Your task to perform on an android device: Open Google Chrome and click the shortcut for Amazon.com Image 0: 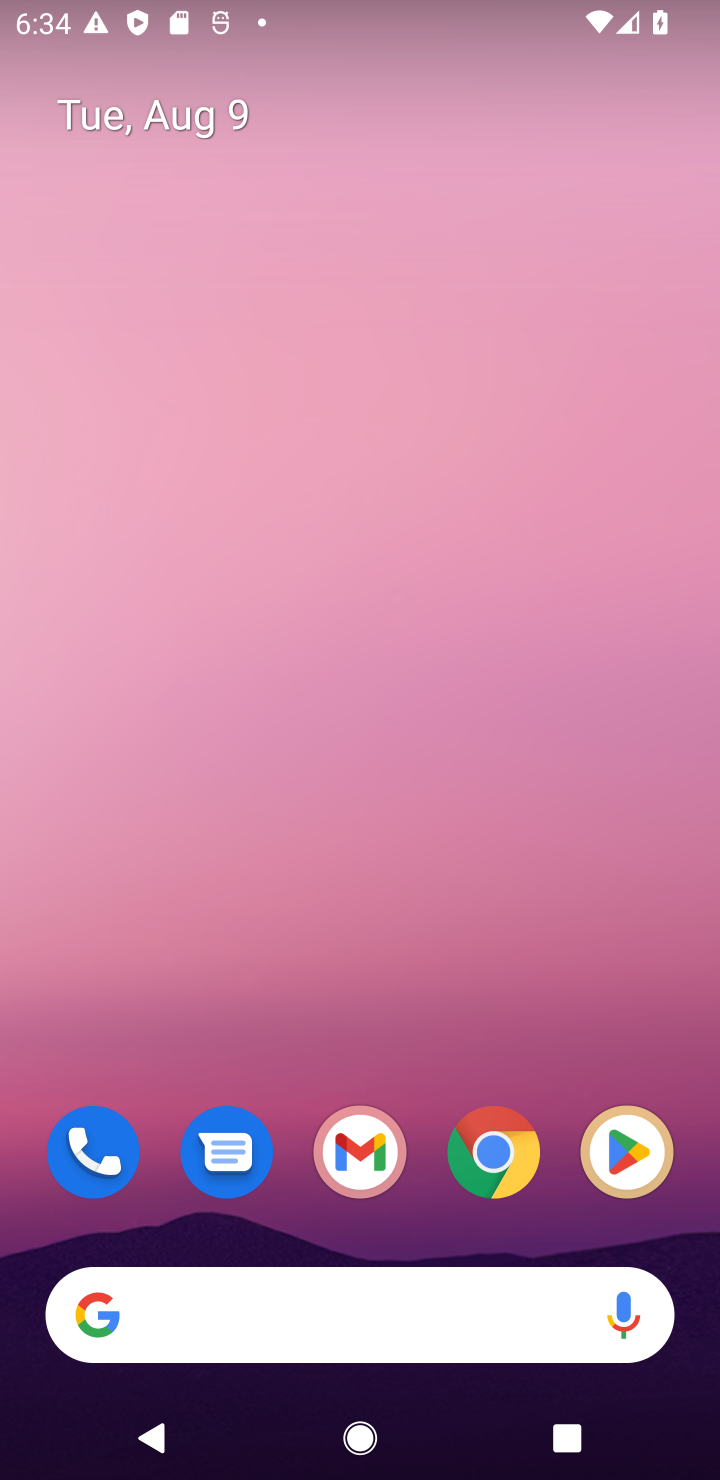
Step 0: click (481, 1169)
Your task to perform on an android device: Open Google Chrome and click the shortcut for Amazon.com Image 1: 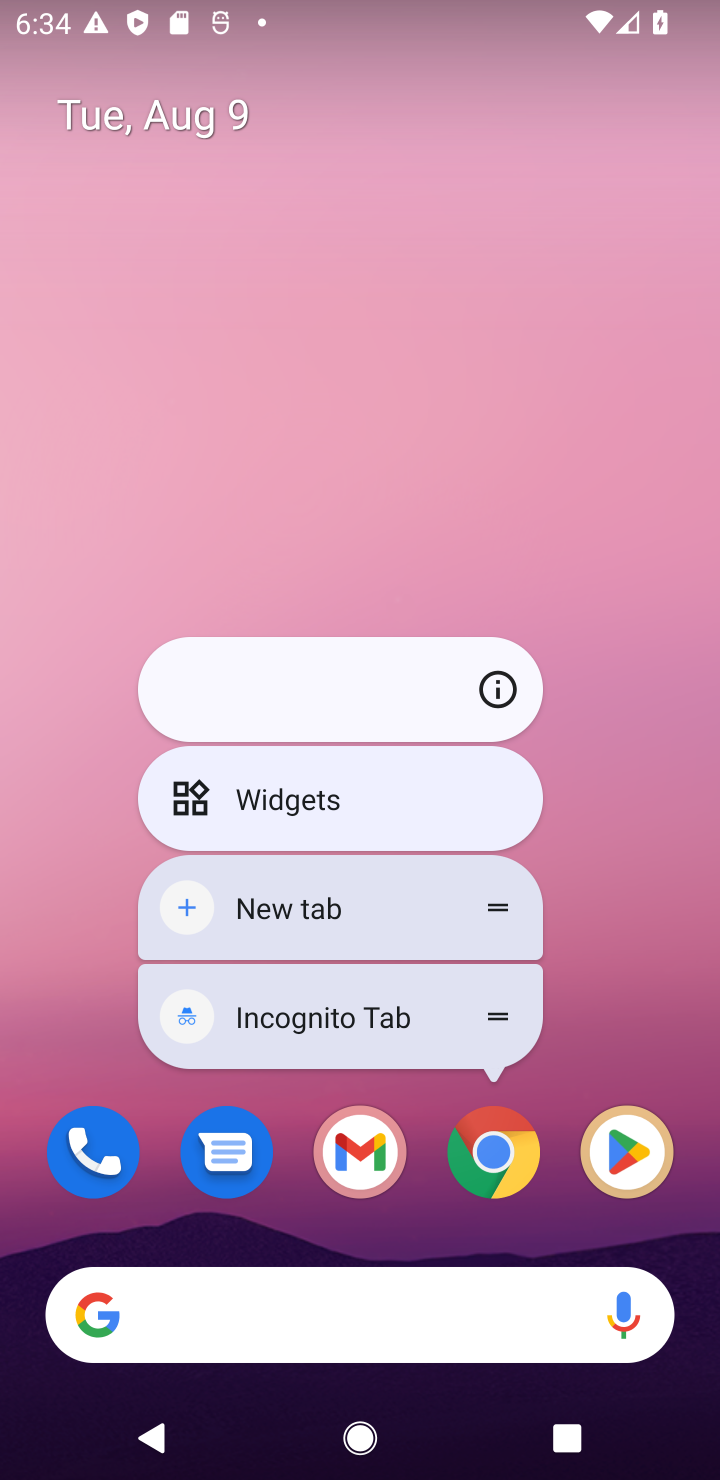
Step 1: click (501, 1165)
Your task to perform on an android device: Open Google Chrome and click the shortcut for Amazon.com Image 2: 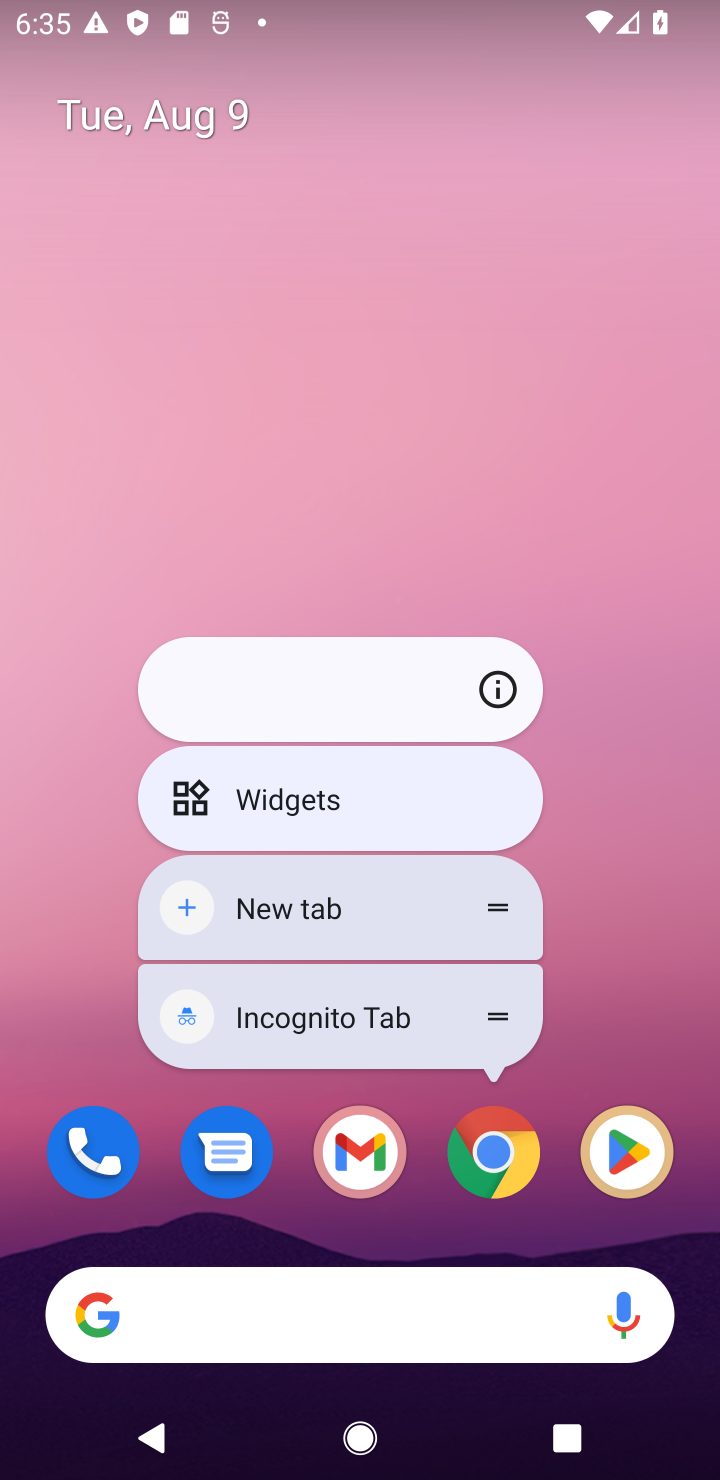
Step 2: click (512, 1129)
Your task to perform on an android device: Open Google Chrome and click the shortcut for Amazon.com Image 3: 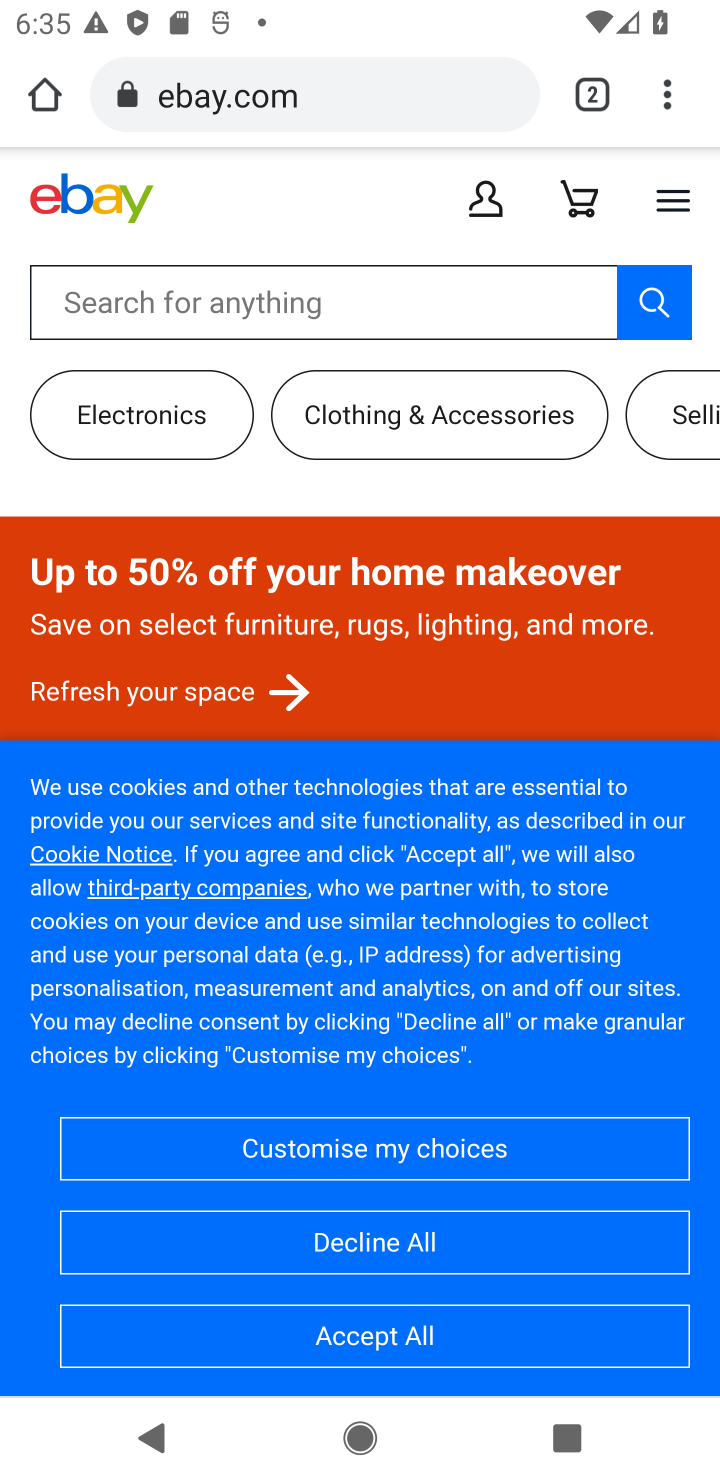
Step 3: click (617, 89)
Your task to perform on an android device: Open Google Chrome and click the shortcut for Amazon.com Image 4: 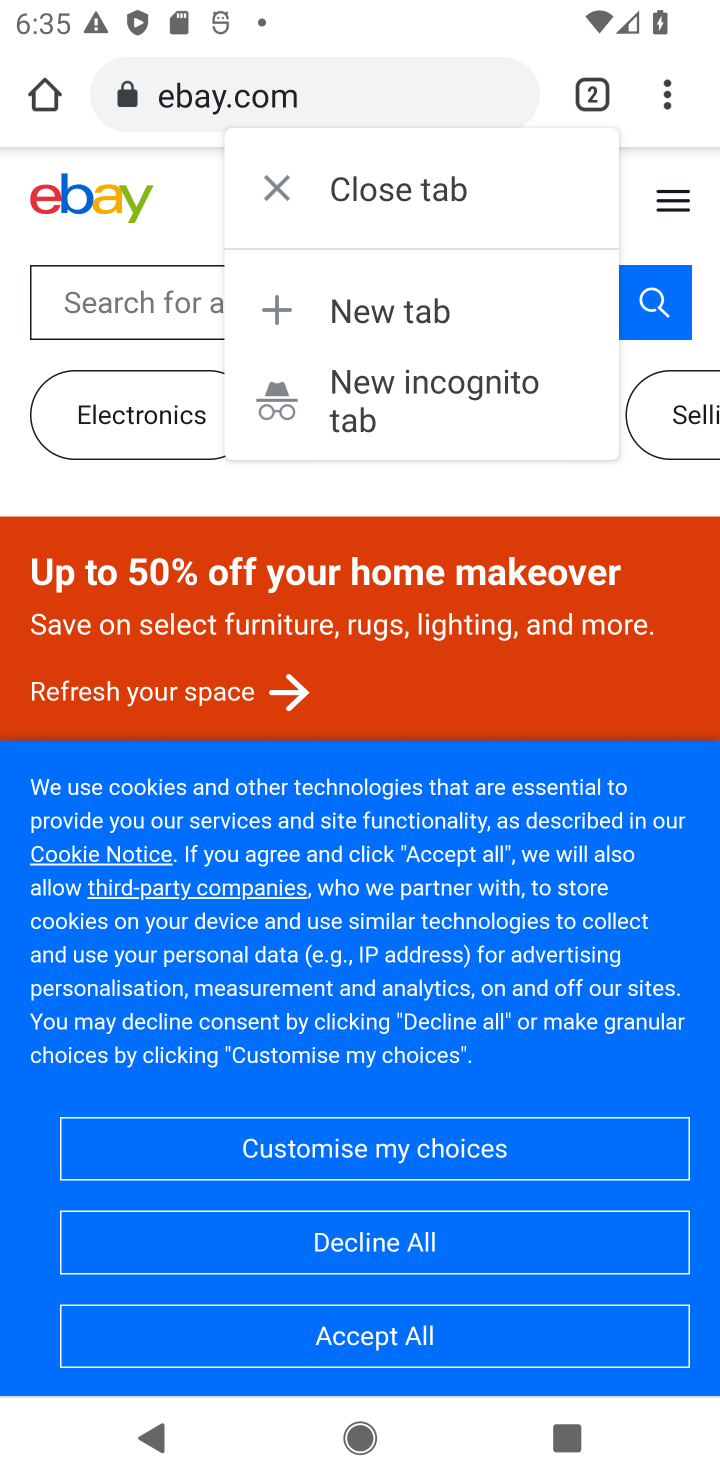
Step 4: click (412, 315)
Your task to perform on an android device: Open Google Chrome and click the shortcut for Amazon.com Image 5: 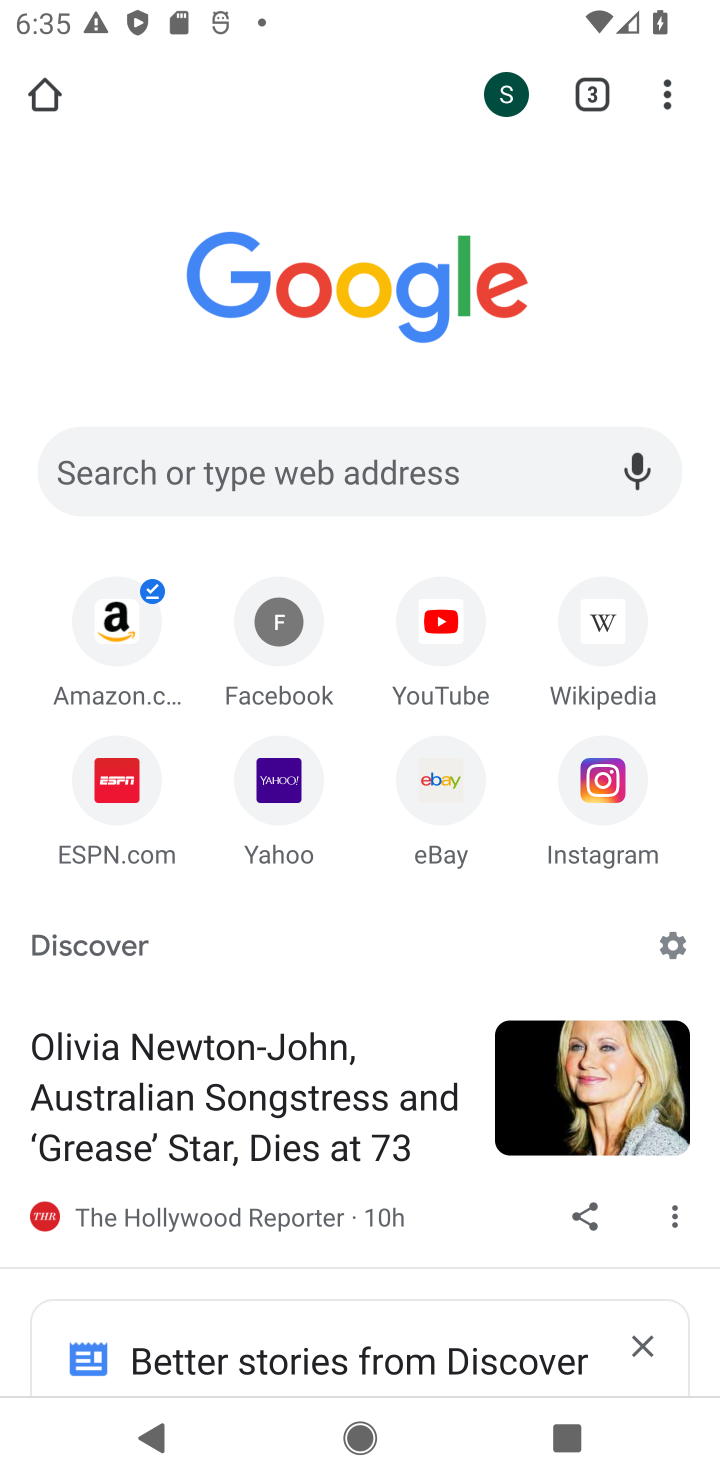
Step 5: click (134, 646)
Your task to perform on an android device: Open Google Chrome and click the shortcut for Amazon.com Image 6: 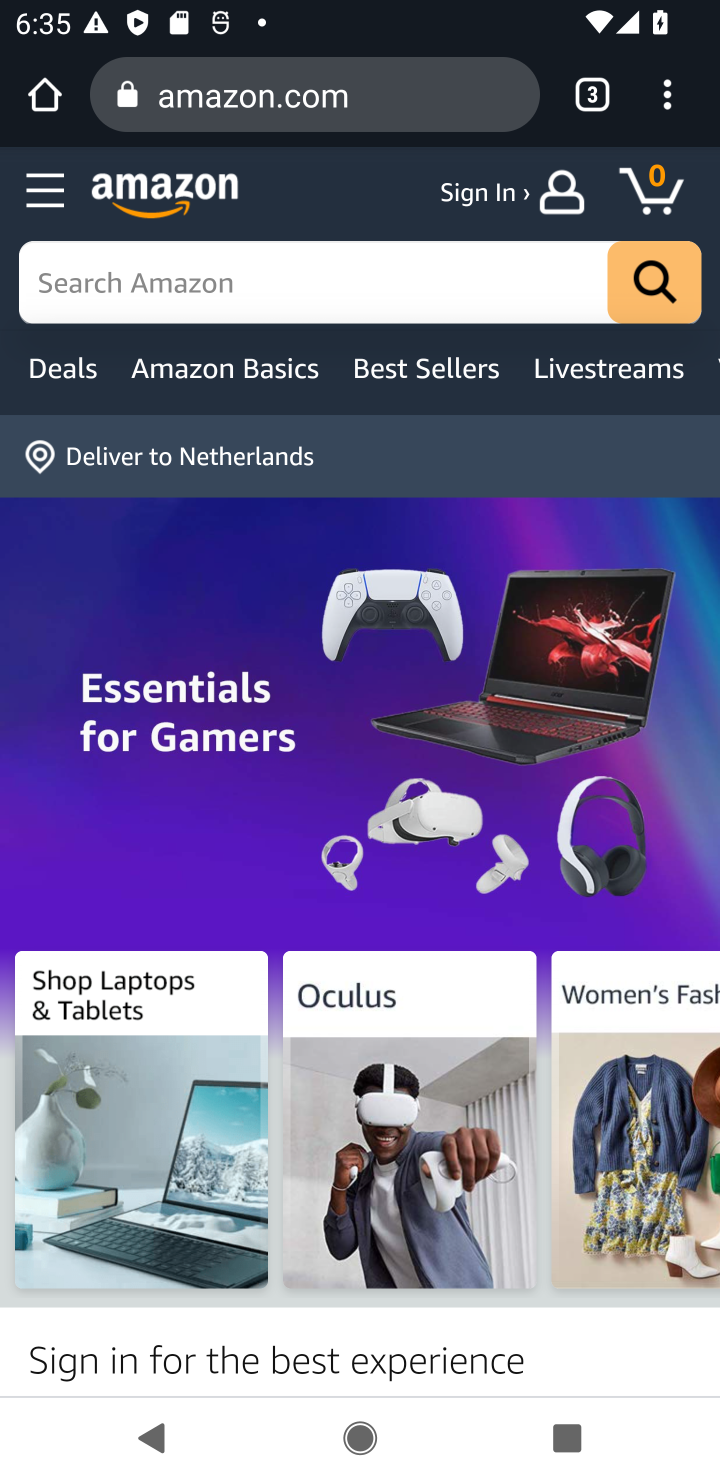
Step 6: task complete